Your task to perform on an android device: see sites visited before in the chrome app Image 0: 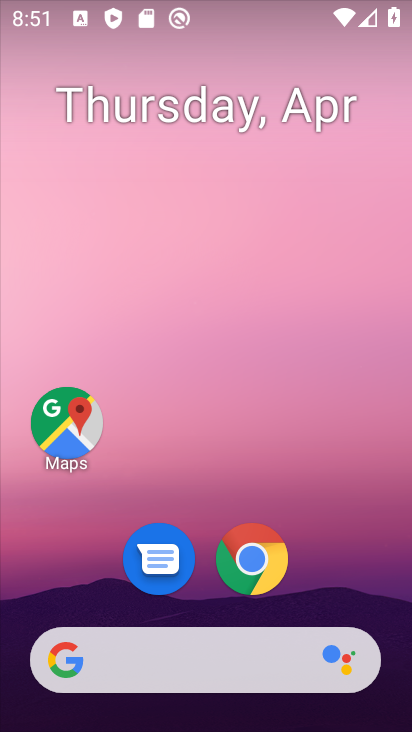
Step 0: click (259, 569)
Your task to perform on an android device: see sites visited before in the chrome app Image 1: 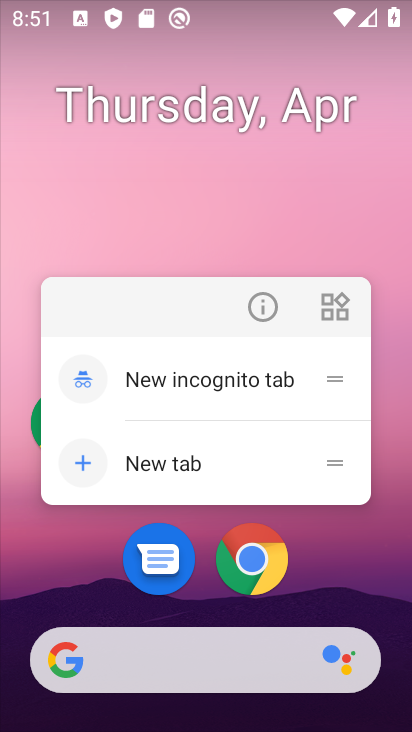
Step 1: click (259, 569)
Your task to perform on an android device: see sites visited before in the chrome app Image 2: 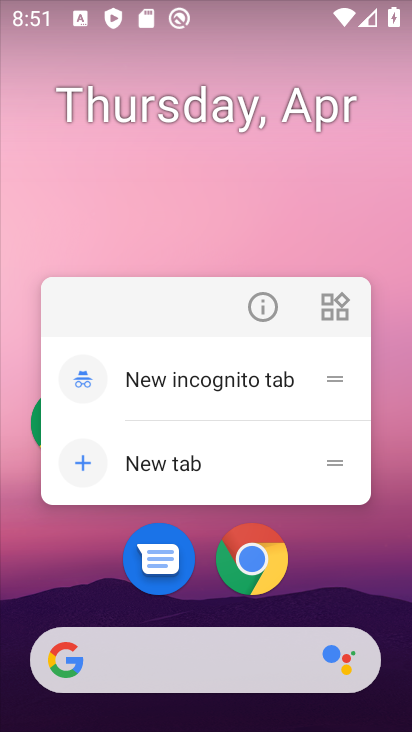
Step 2: click (265, 541)
Your task to perform on an android device: see sites visited before in the chrome app Image 3: 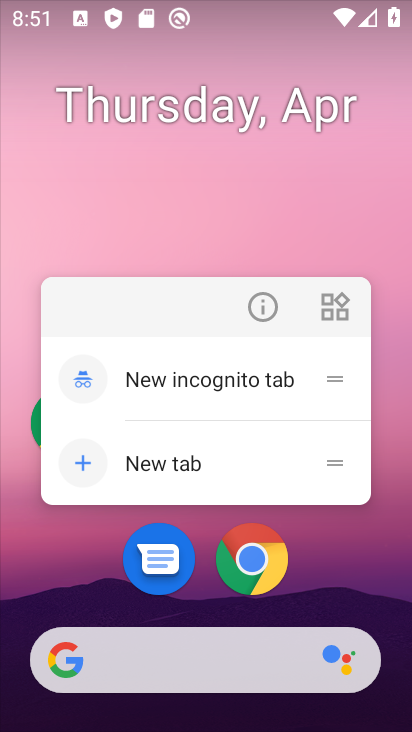
Step 3: click (246, 568)
Your task to perform on an android device: see sites visited before in the chrome app Image 4: 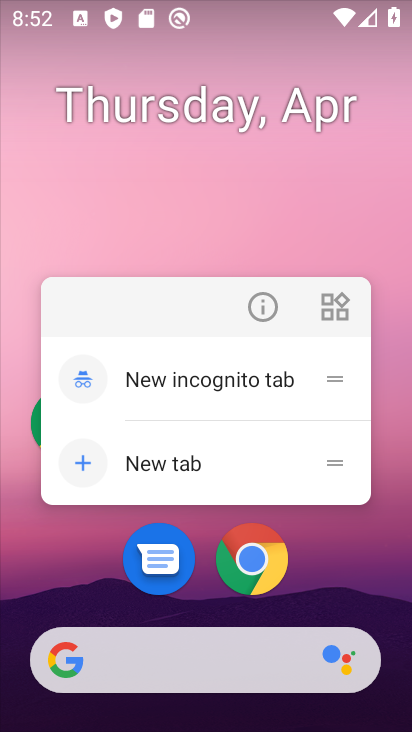
Step 4: click (246, 568)
Your task to perform on an android device: see sites visited before in the chrome app Image 5: 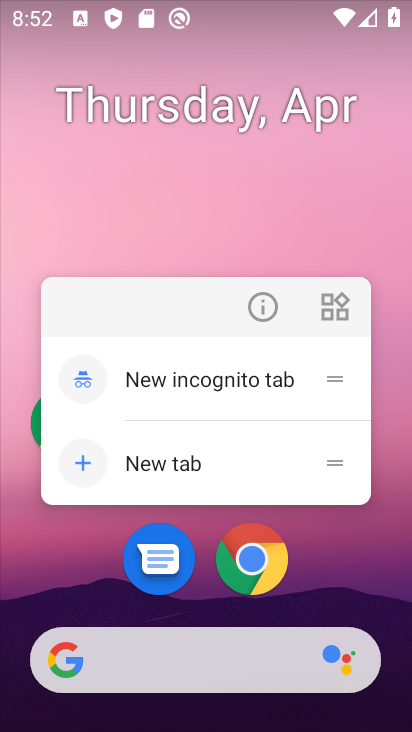
Step 5: click (246, 568)
Your task to perform on an android device: see sites visited before in the chrome app Image 6: 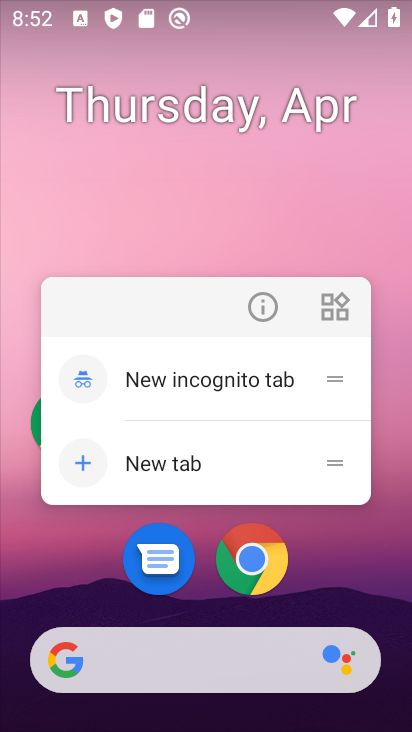
Step 6: click (246, 568)
Your task to perform on an android device: see sites visited before in the chrome app Image 7: 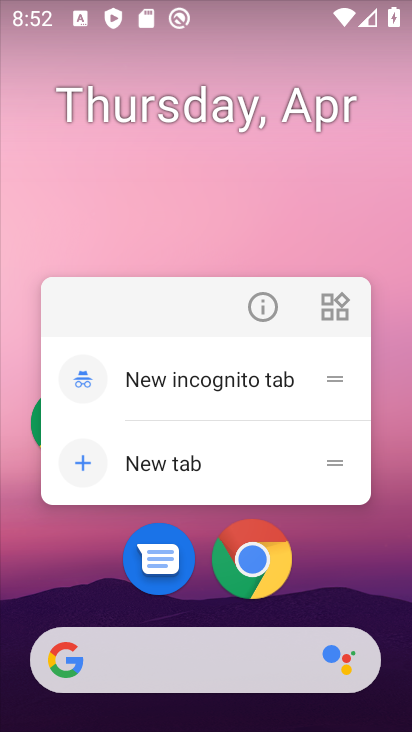
Step 7: click (246, 568)
Your task to perform on an android device: see sites visited before in the chrome app Image 8: 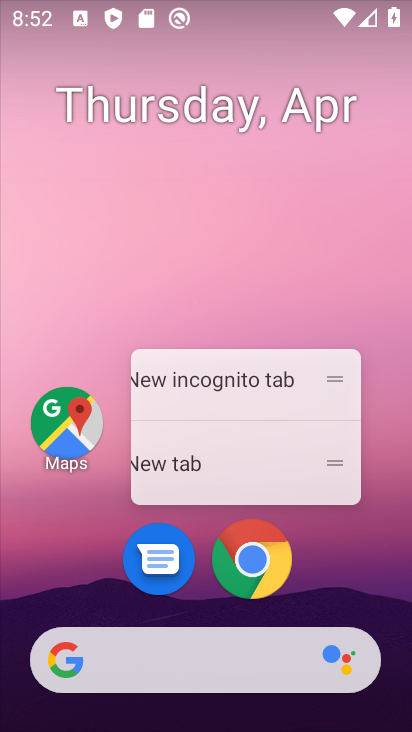
Step 8: click (246, 568)
Your task to perform on an android device: see sites visited before in the chrome app Image 9: 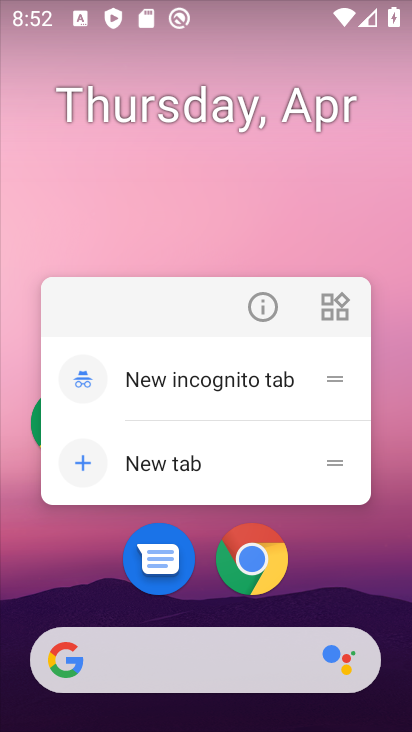
Step 9: click (246, 568)
Your task to perform on an android device: see sites visited before in the chrome app Image 10: 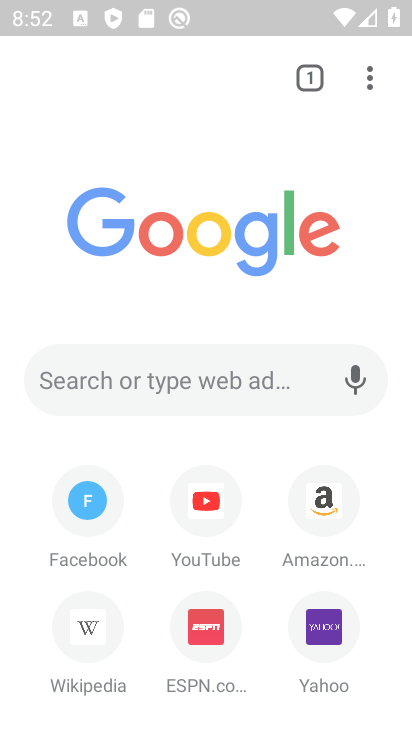
Step 10: click (246, 568)
Your task to perform on an android device: see sites visited before in the chrome app Image 11: 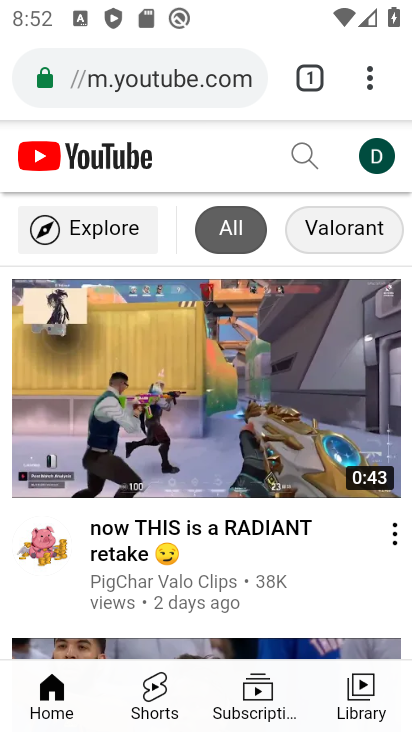
Step 11: press back button
Your task to perform on an android device: see sites visited before in the chrome app Image 12: 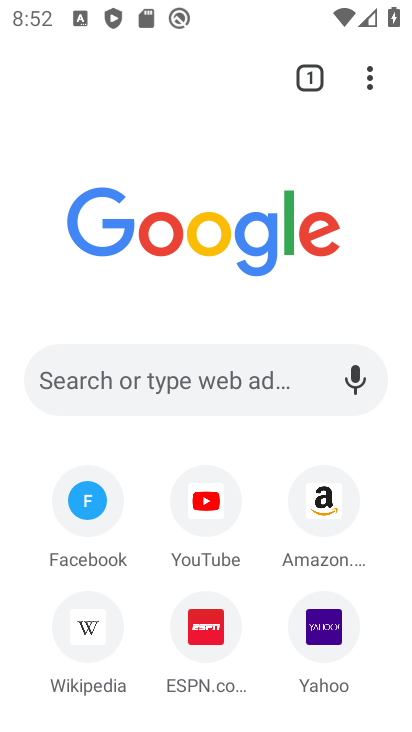
Step 12: click (362, 75)
Your task to perform on an android device: see sites visited before in the chrome app Image 13: 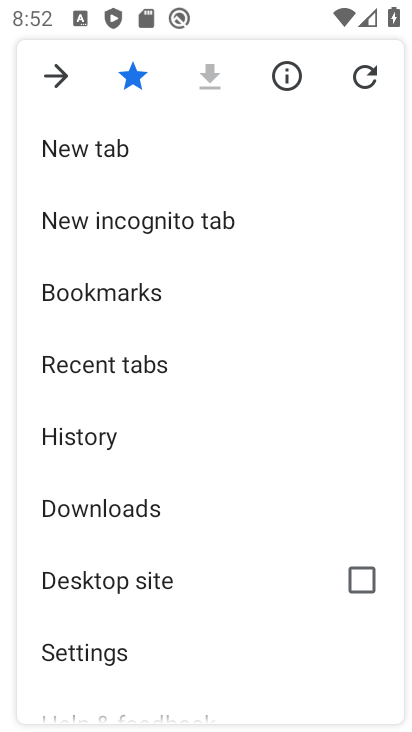
Step 13: click (91, 363)
Your task to perform on an android device: see sites visited before in the chrome app Image 14: 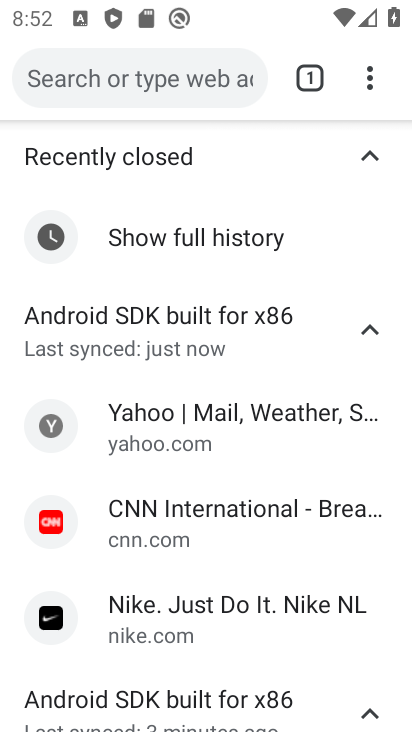
Step 14: task complete